Your task to perform on an android device: Open accessibility settings Image 0: 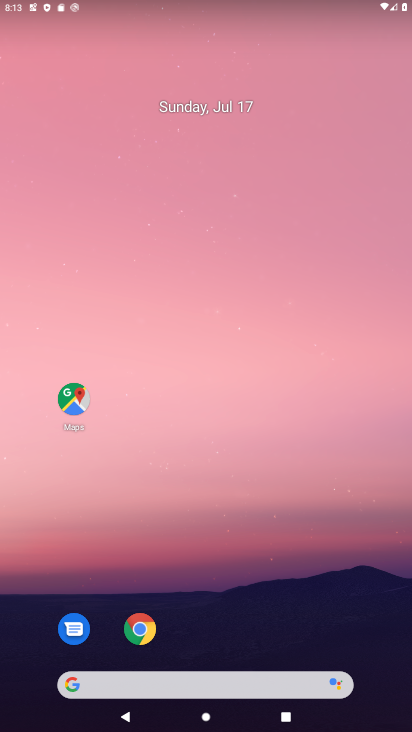
Step 0: drag from (226, 724) to (208, 49)
Your task to perform on an android device: Open accessibility settings Image 1: 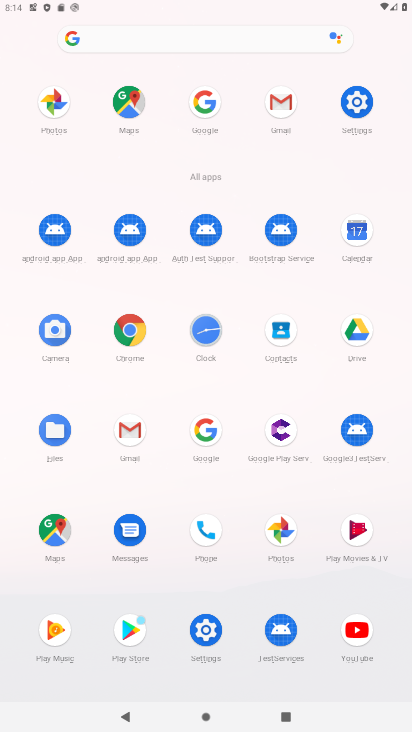
Step 1: click (359, 98)
Your task to perform on an android device: Open accessibility settings Image 2: 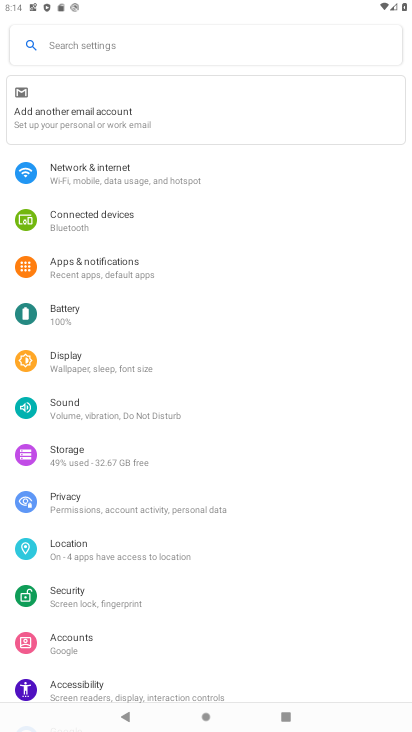
Step 2: drag from (147, 633) to (156, 433)
Your task to perform on an android device: Open accessibility settings Image 3: 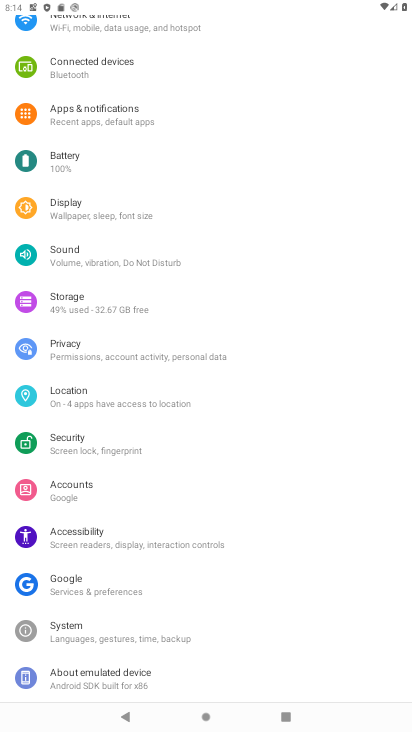
Step 3: click (79, 538)
Your task to perform on an android device: Open accessibility settings Image 4: 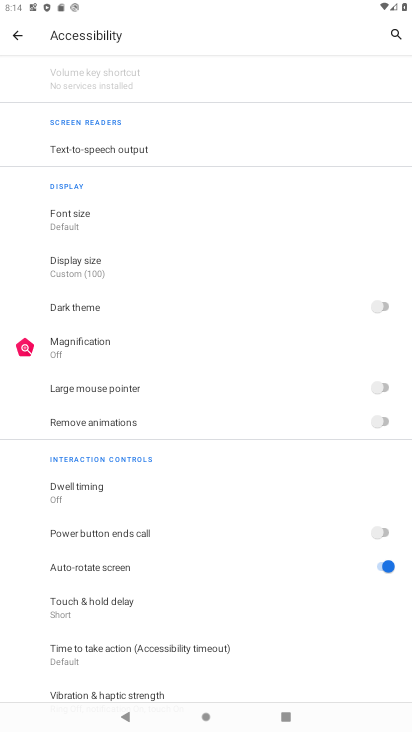
Step 4: task complete